Your task to perform on an android device: open a bookmark in the chrome app Image 0: 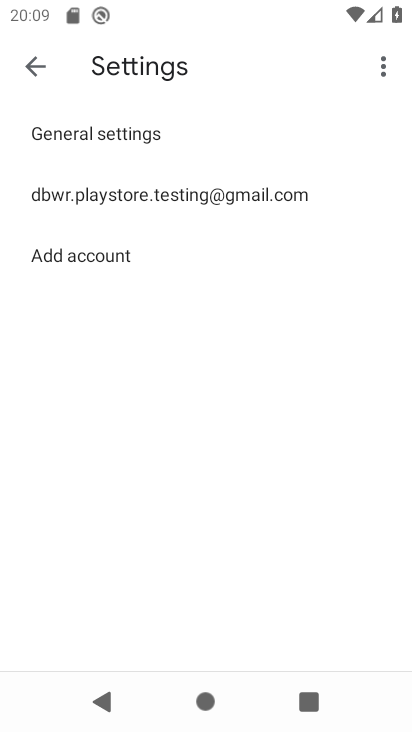
Step 0: press home button
Your task to perform on an android device: open a bookmark in the chrome app Image 1: 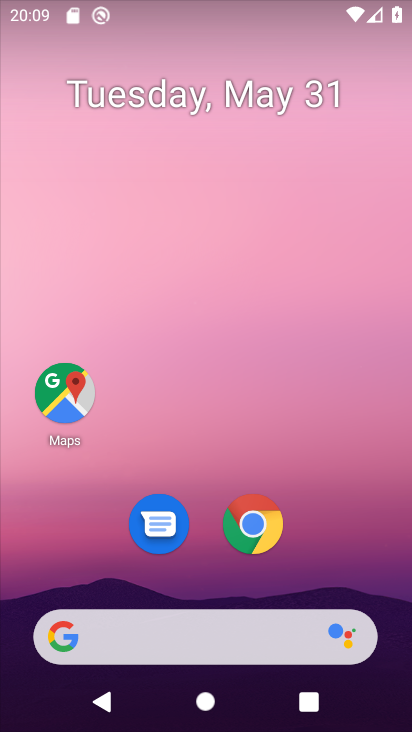
Step 1: click (267, 538)
Your task to perform on an android device: open a bookmark in the chrome app Image 2: 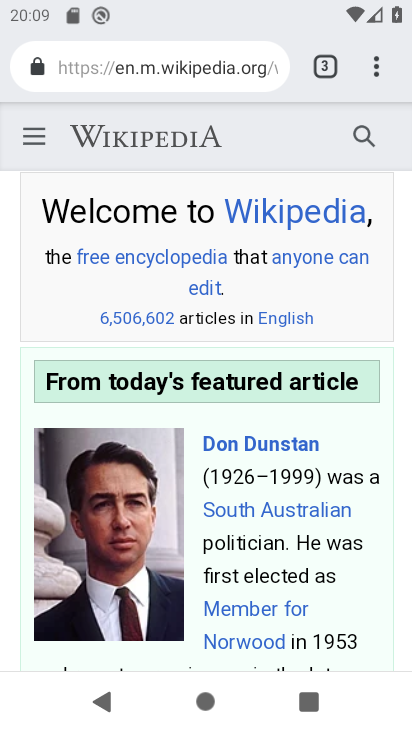
Step 2: click (373, 60)
Your task to perform on an android device: open a bookmark in the chrome app Image 3: 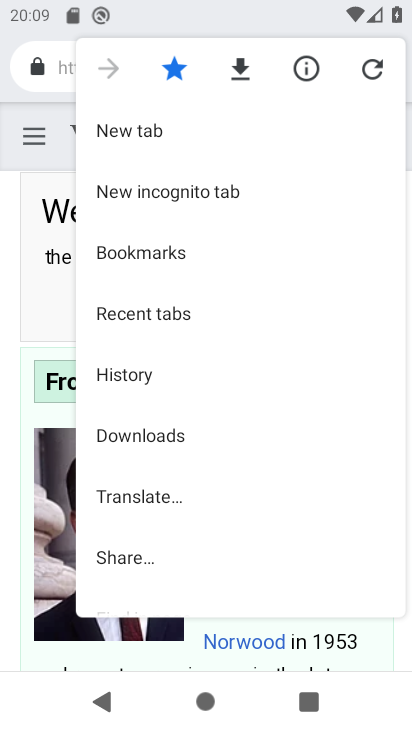
Step 3: click (209, 252)
Your task to perform on an android device: open a bookmark in the chrome app Image 4: 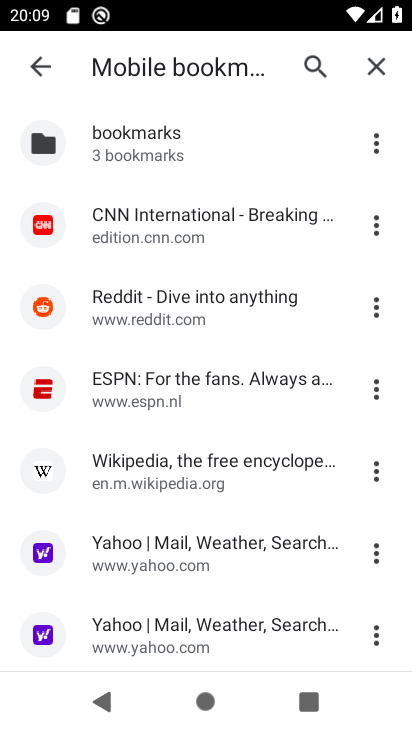
Step 4: click (209, 252)
Your task to perform on an android device: open a bookmark in the chrome app Image 5: 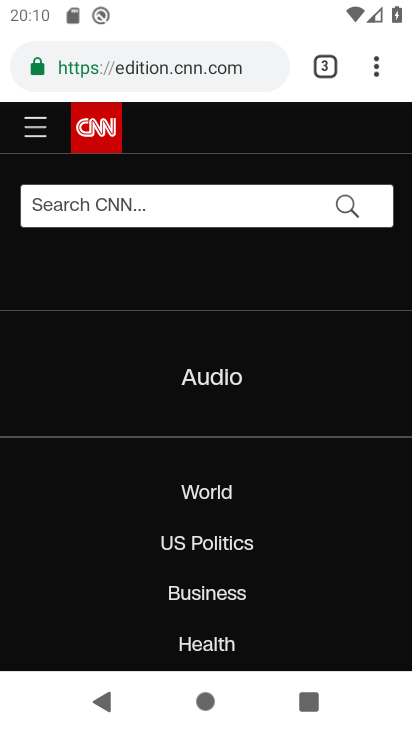
Step 5: task complete